Your task to perform on an android device: Open Google Chrome and open the bookmarks view Image 0: 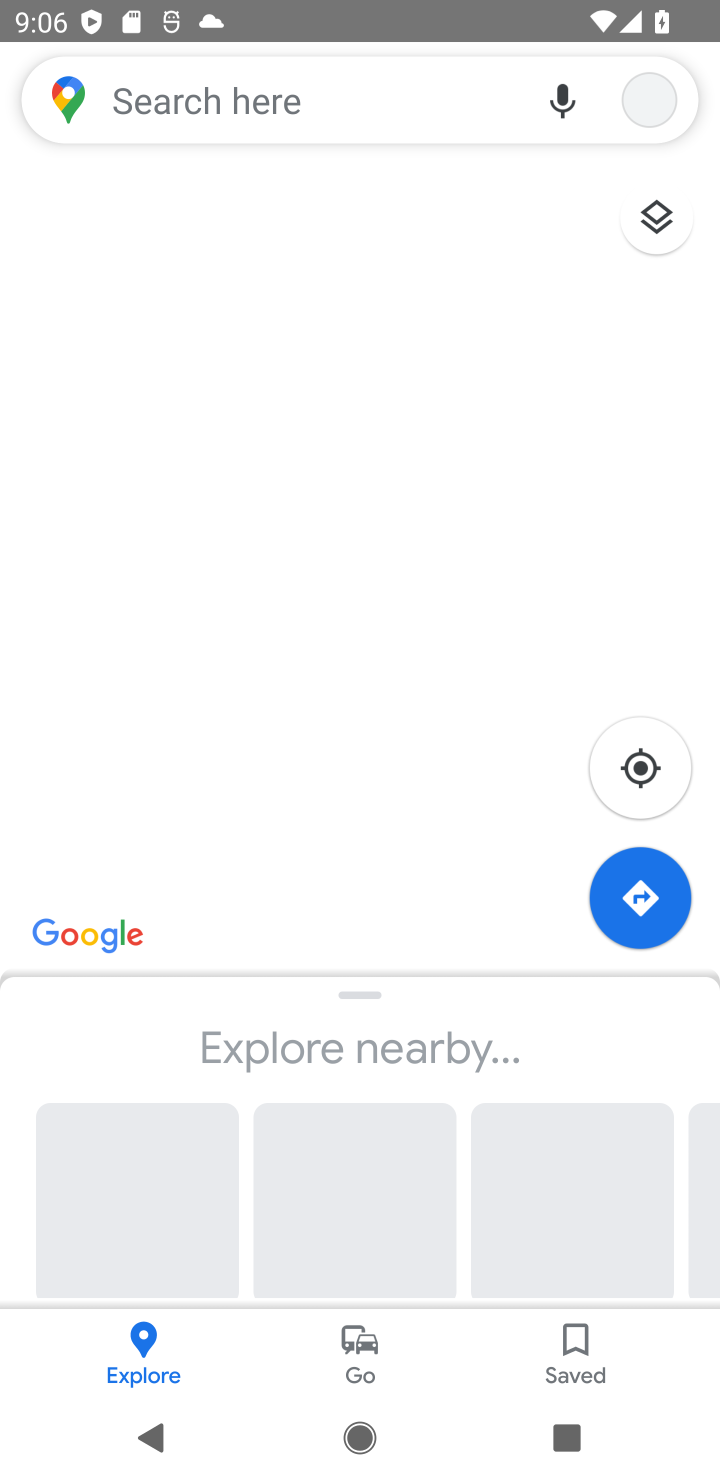
Step 0: press home button
Your task to perform on an android device: Open Google Chrome and open the bookmarks view Image 1: 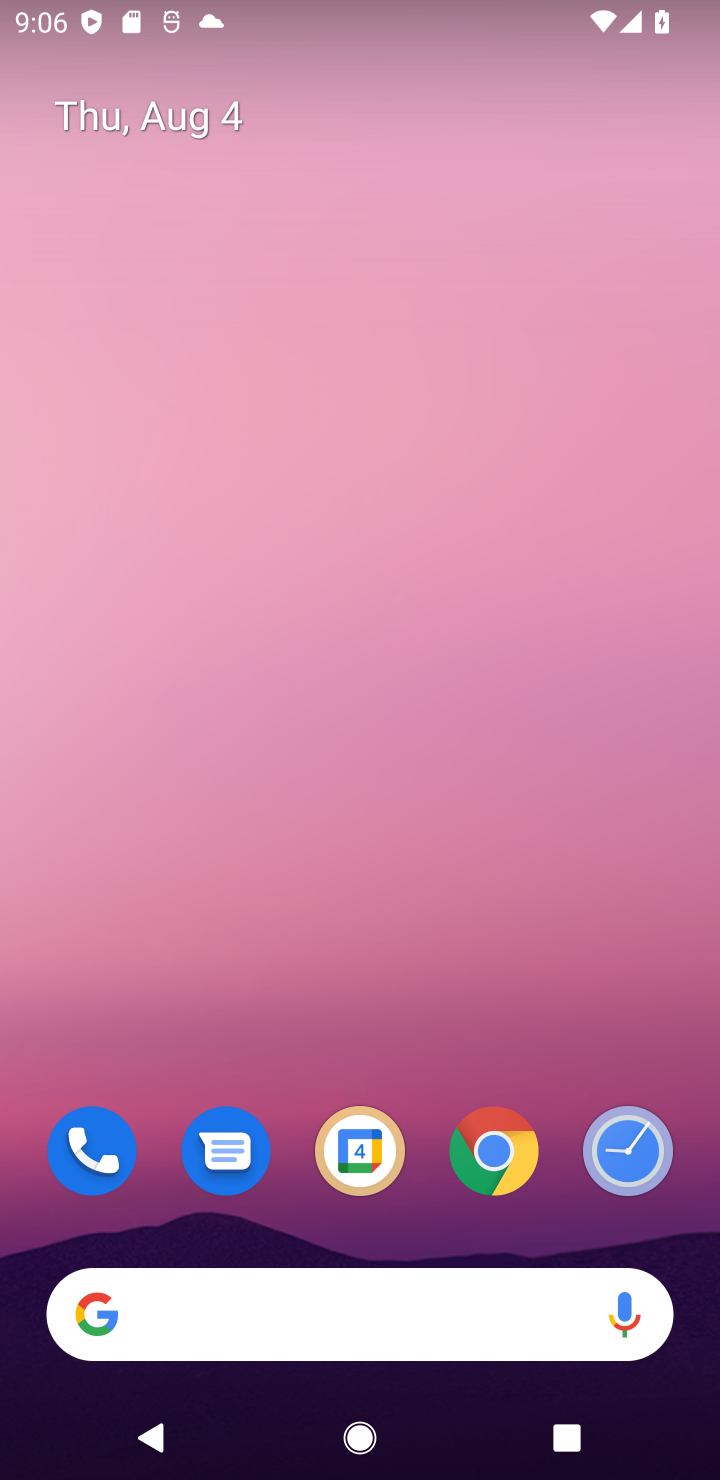
Step 1: click (388, 913)
Your task to perform on an android device: Open Google Chrome and open the bookmarks view Image 2: 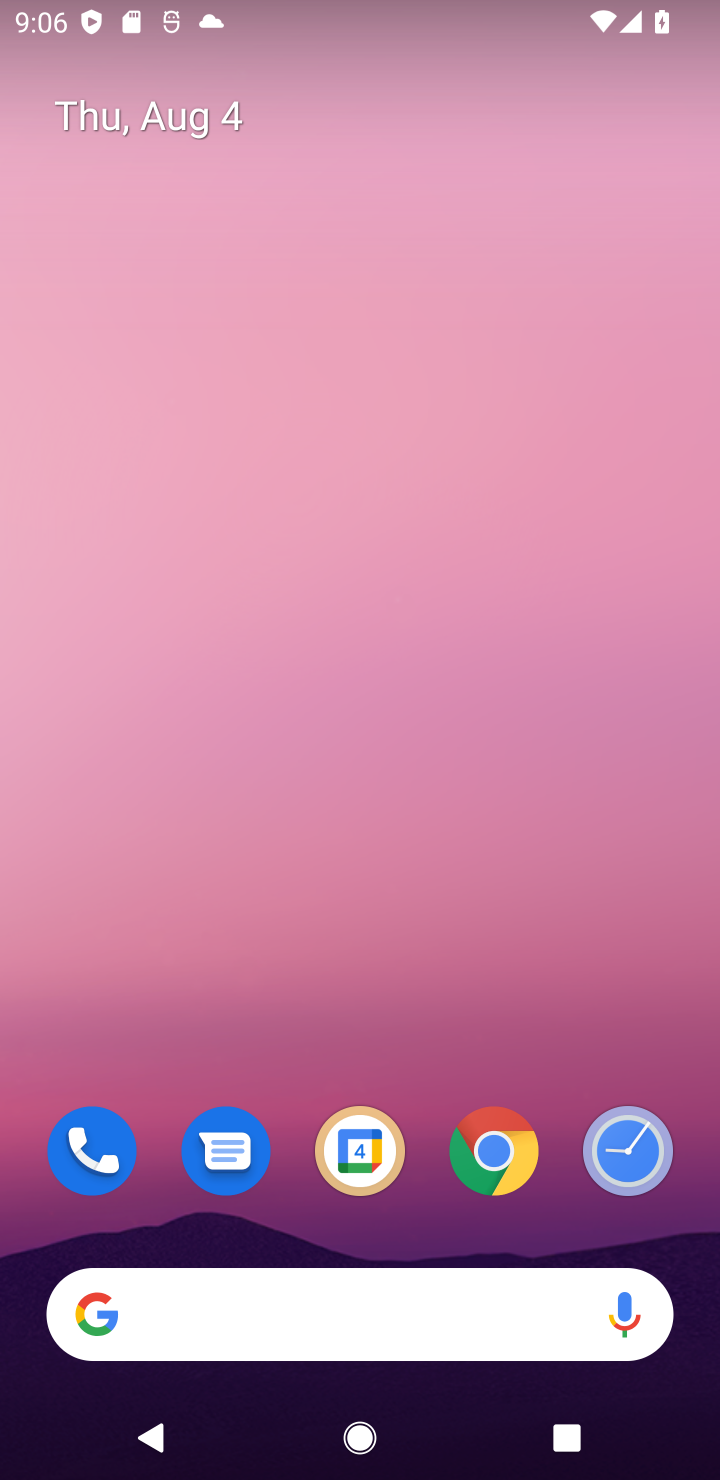
Step 2: click (507, 1143)
Your task to perform on an android device: Open Google Chrome and open the bookmarks view Image 3: 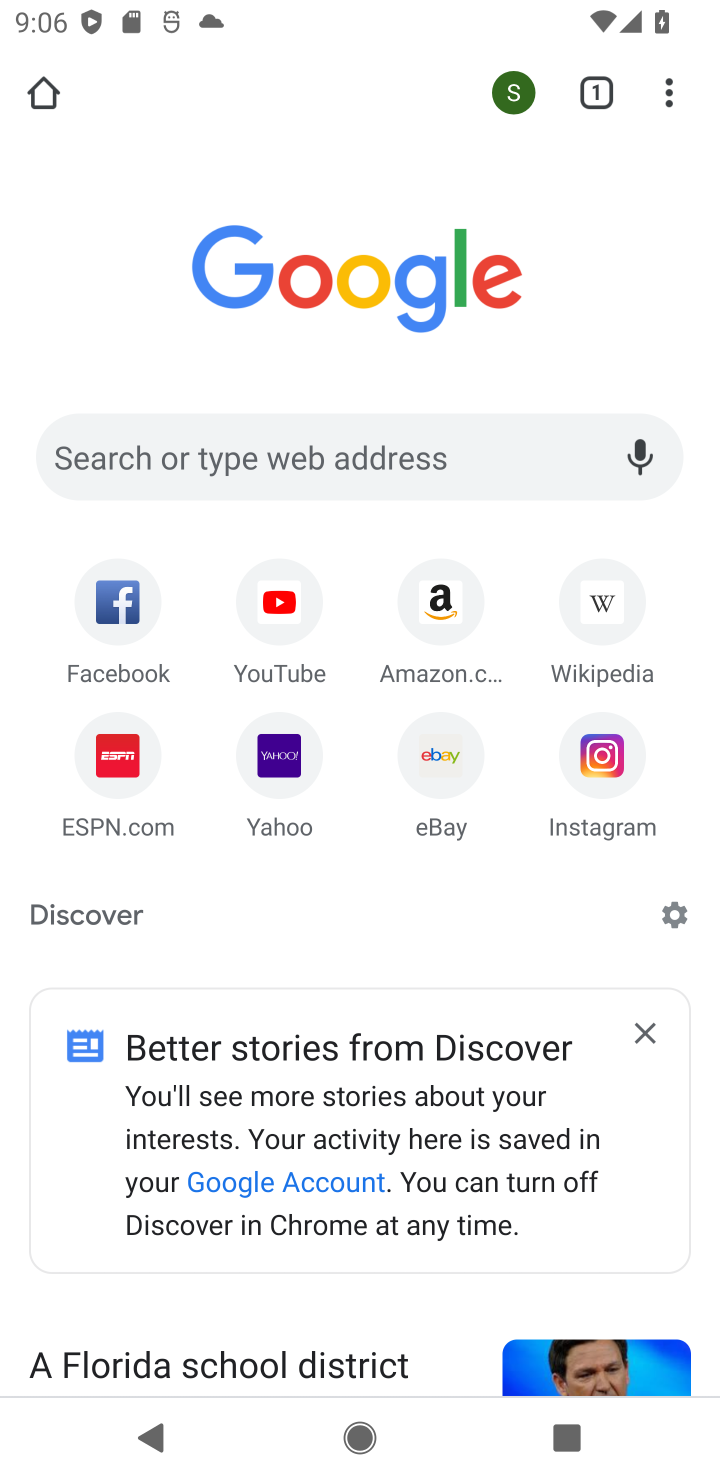
Step 3: click (657, 81)
Your task to perform on an android device: Open Google Chrome and open the bookmarks view Image 4: 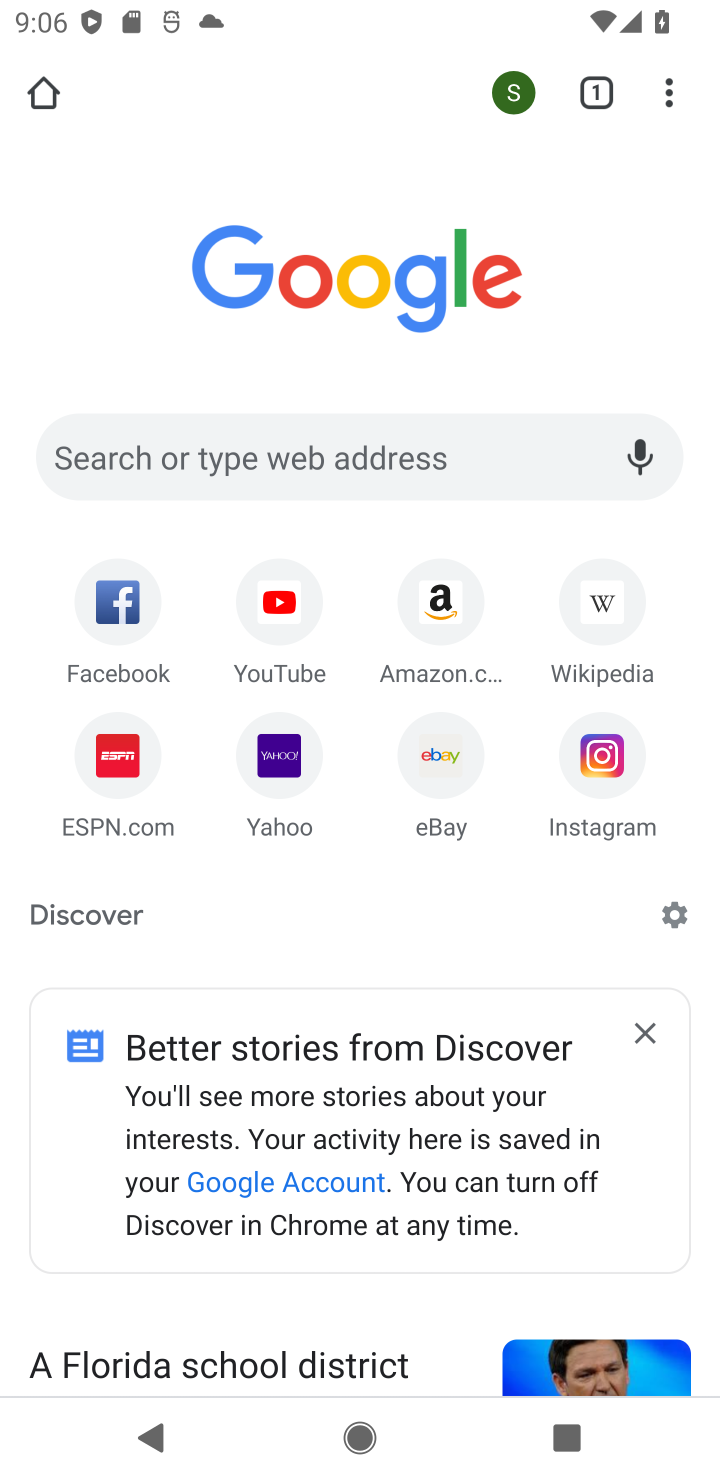
Step 4: click (657, 81)
Your task to perform on an android device: Open Google Chrome and open the bookmarks view Image 5: 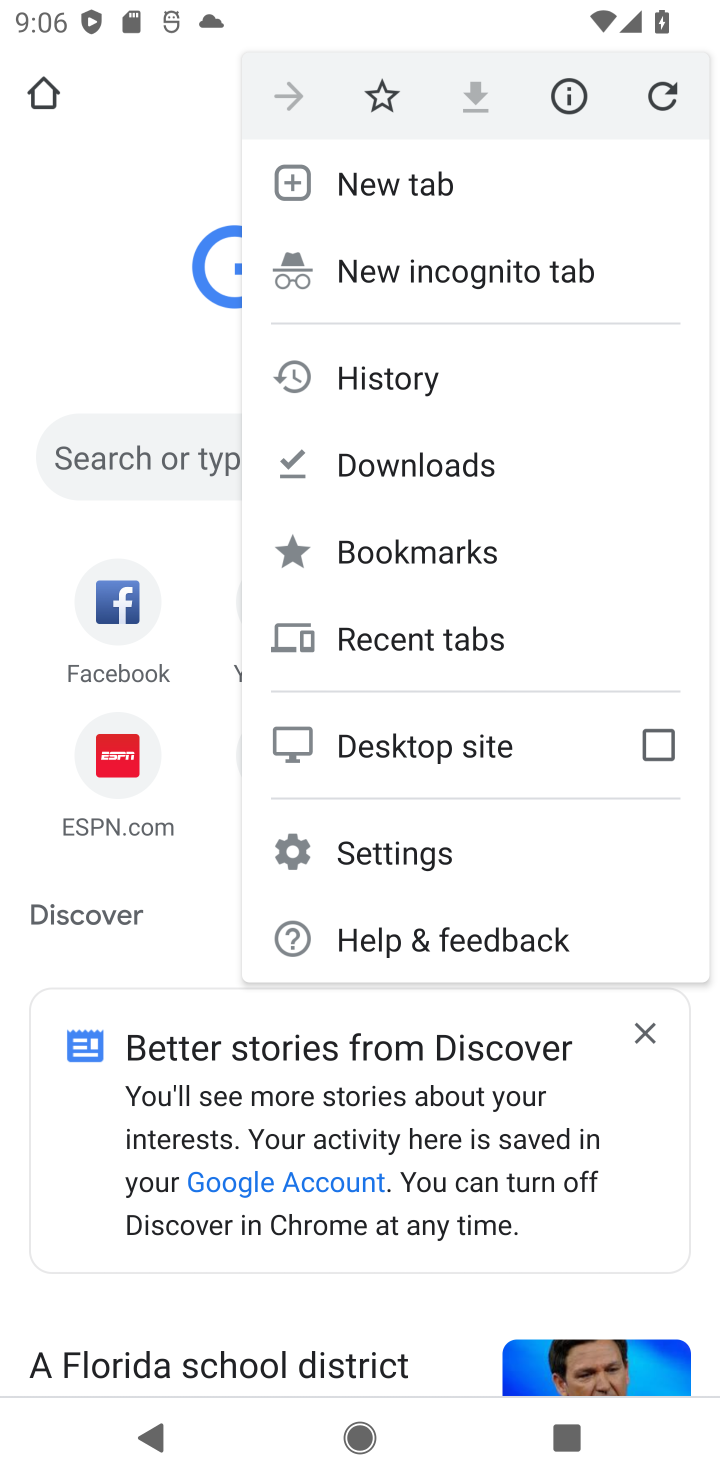
Step 5: click (439, 539)
Your task to perform on an android device: Open Google Chrome and open the bookmarks view Image 6: 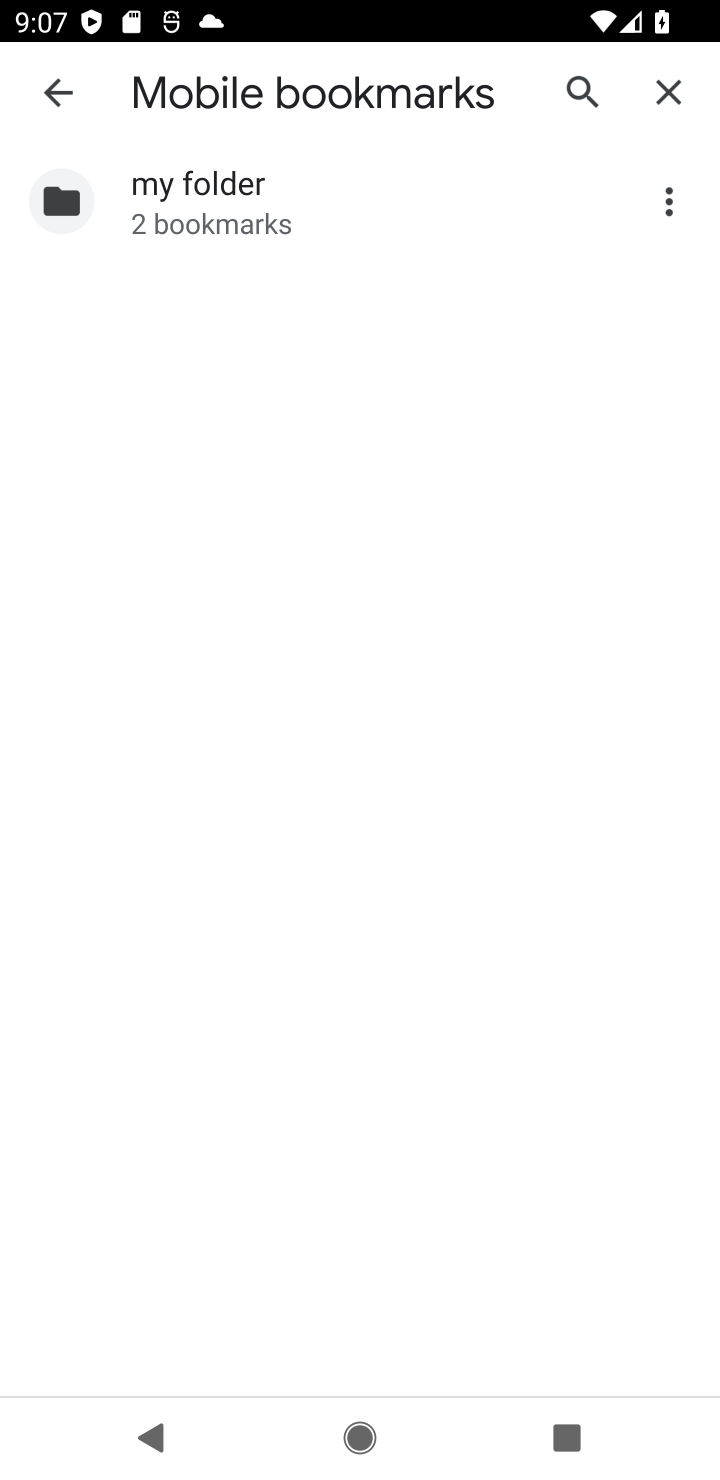
Step 6: task complete